Your task to perform on an android device: Search for the best deal on a 3d printer on aliexpress Image 0: 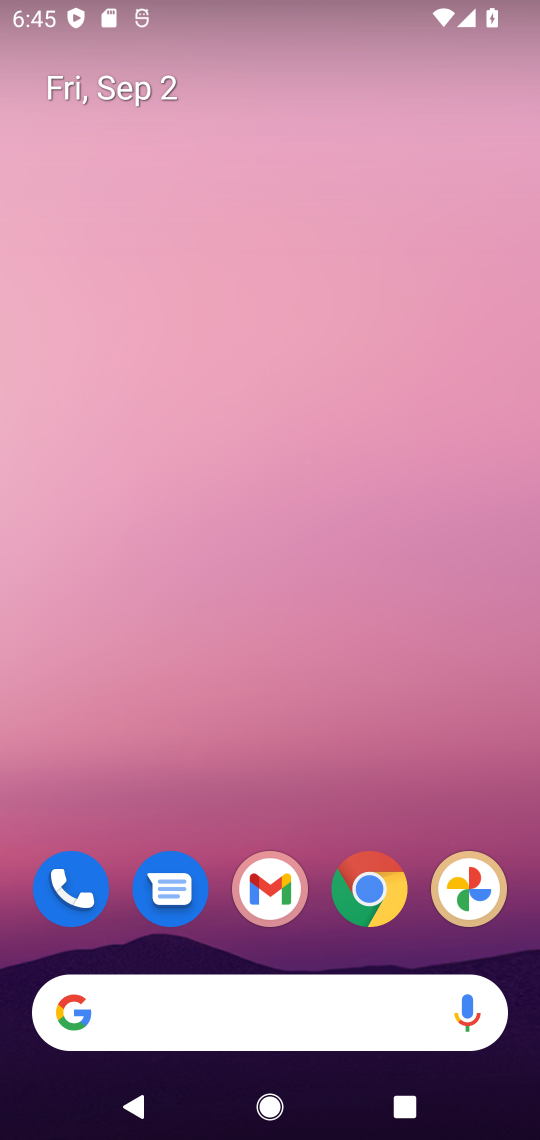
Step 0: click (239, 1013)
Your task to perform on an android device: Search for the best deal on a 3d printer on aliexpress Image 1: 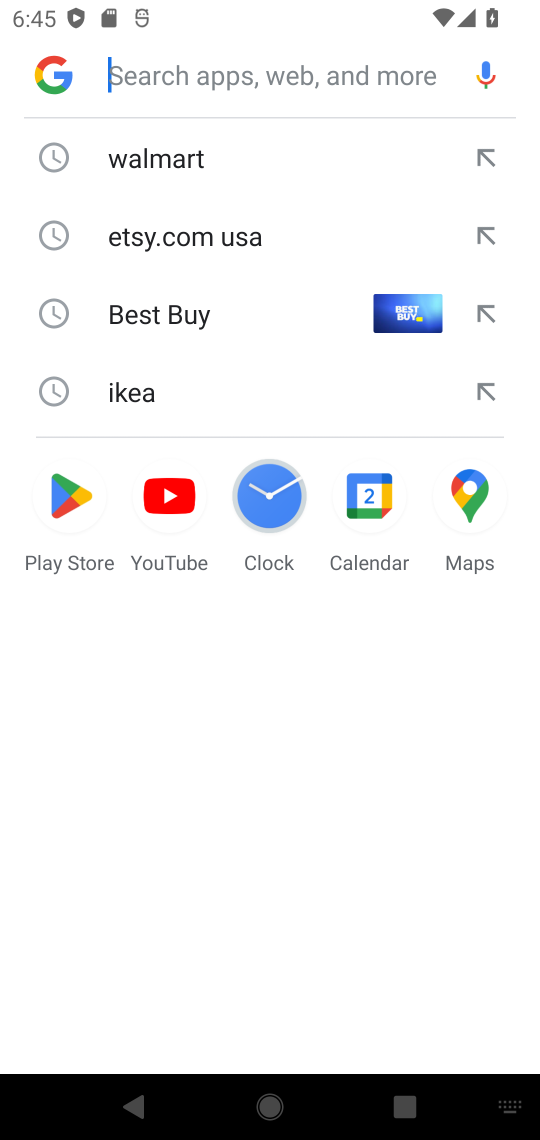
Step 1: type "aliexpress"
Your task to perform on an android device: Search for the best deal on a 3d printer on aliexpress Image 2: 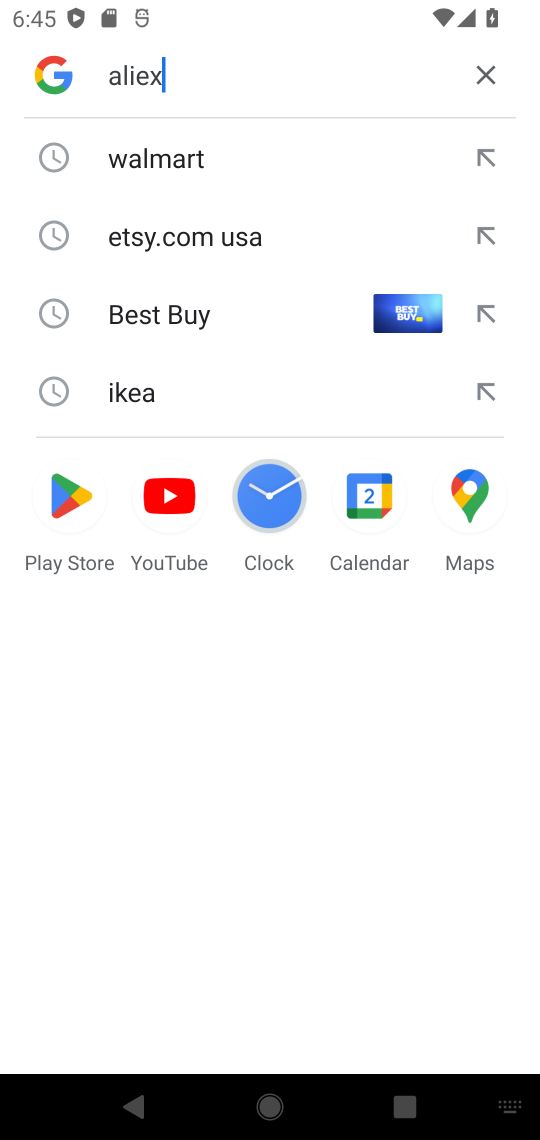
Step 2: type ""
Your task to perform on an android device: Search for the best deal on a 3d printer on aliexpress Image 3: 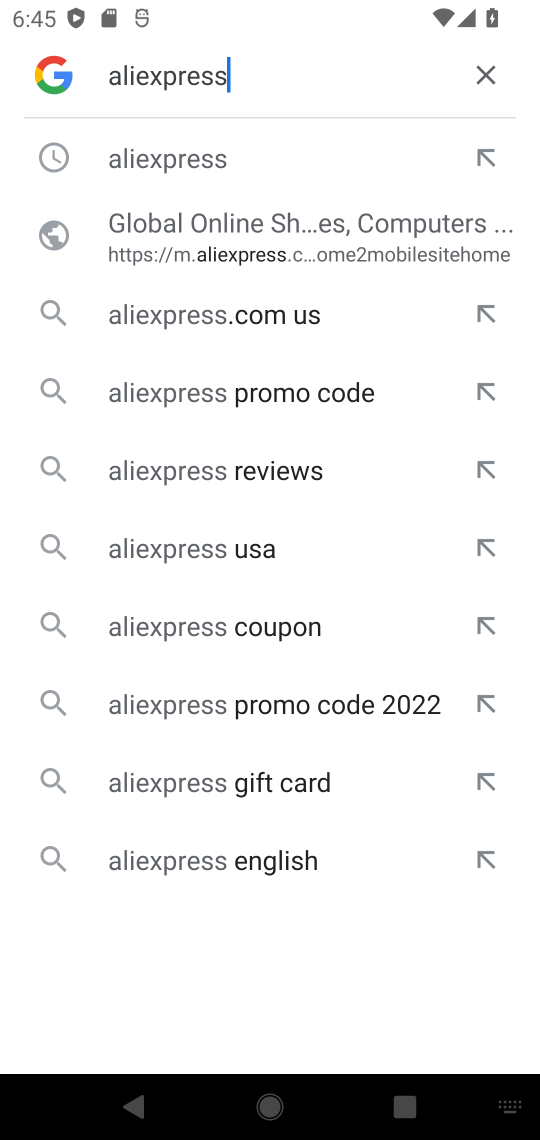
Step 3: click (206, 157)
Your task to perform on an android device: Search for the best deal on a 3d printer on aliexpress Image 4: 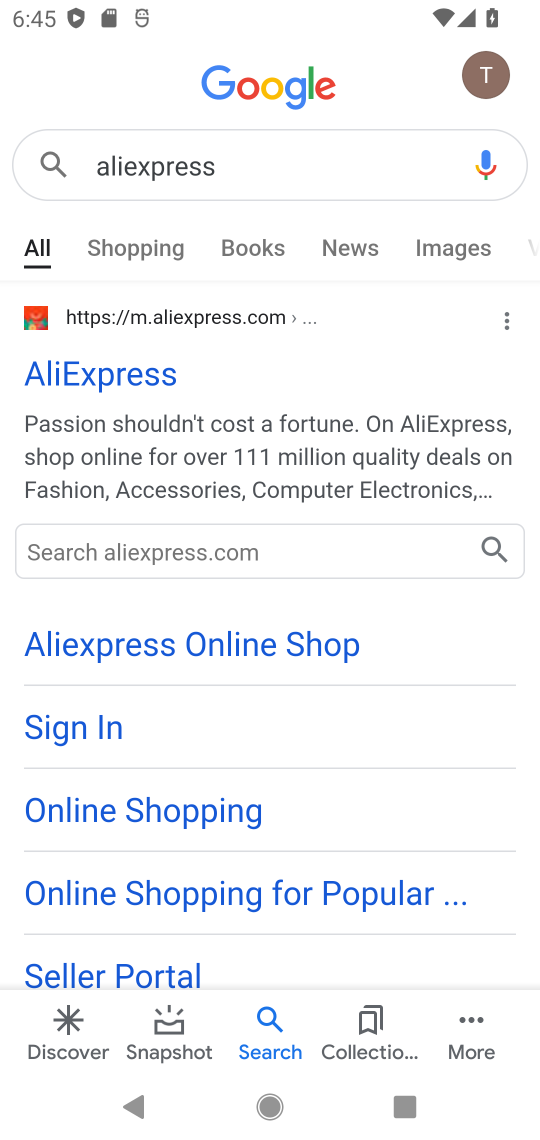
Step 4: click (150, 369)
Your task to perform on an android device: Search for the best deal on a 3d printer on aliexpress Image 5: 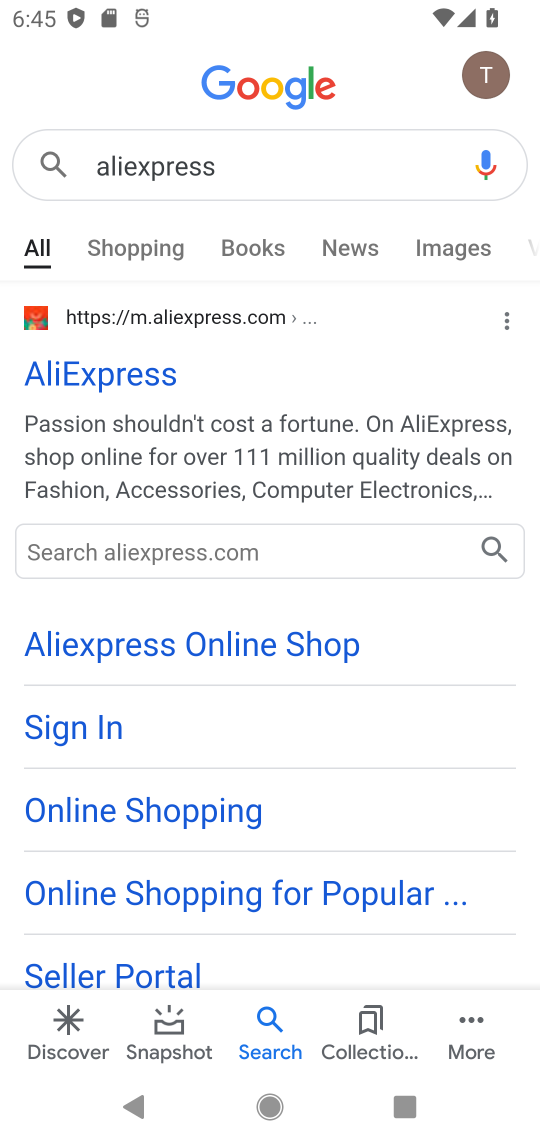
Step 5: click (119, 388)
Your task to perform on an android device: Search for the best deal on a 3d printer on aliexpress Image 6: 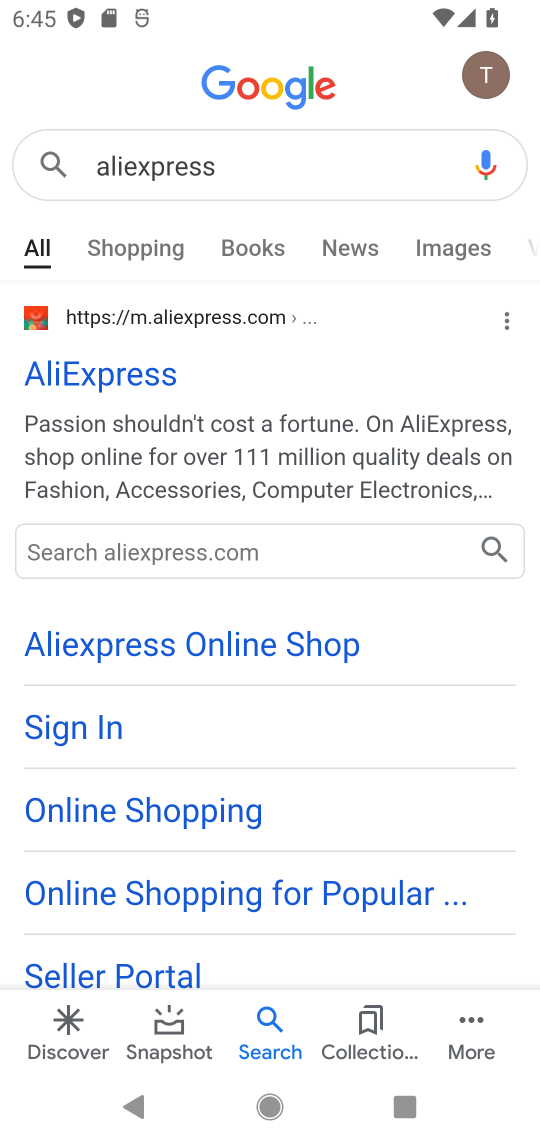
Step 6: click (115, 381)
Your task to perform on an android device: Search for the best deal on a 3d printer on aliexpress Image 7: 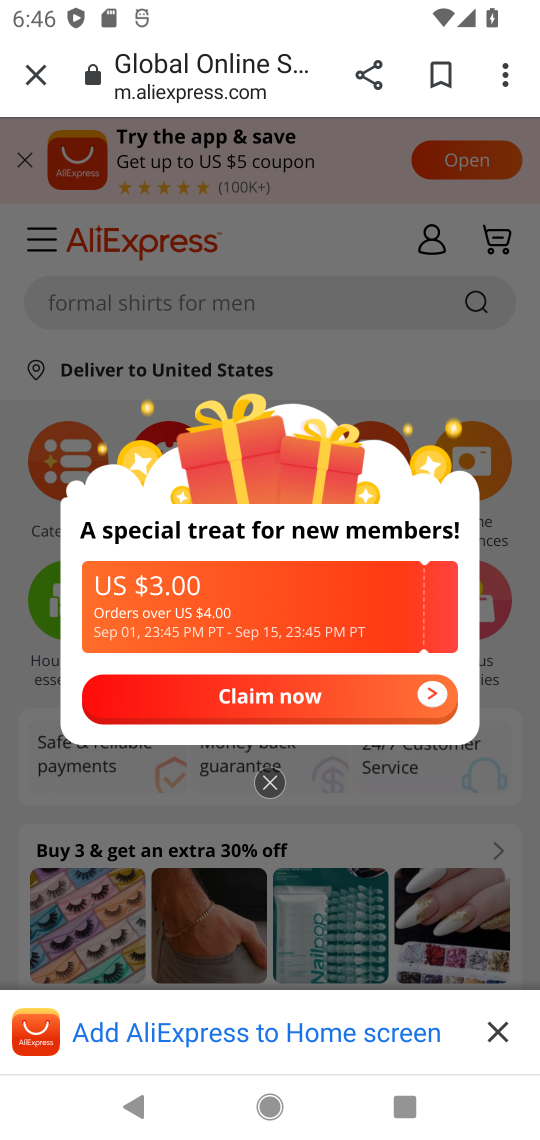
Step 7: click (263, 786)
Your task to perform on an android device: Search for the best deal on a 3d printer on aliexpress Image 8: 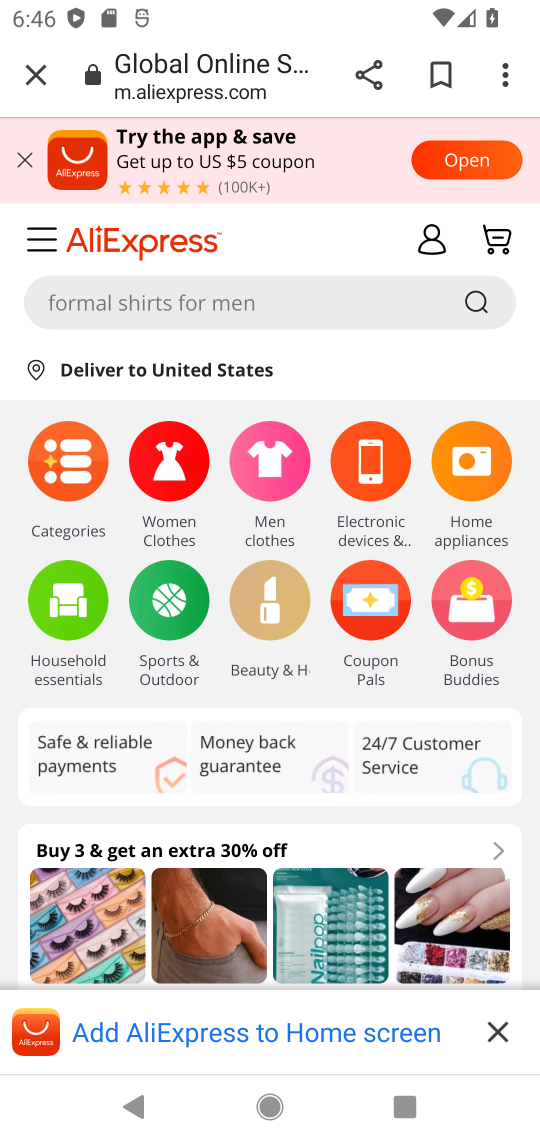
Step 8: click (205, 313)
Your task to perform on an android device: Search for the best deal on a 3d printer on aliexpress Image 9: 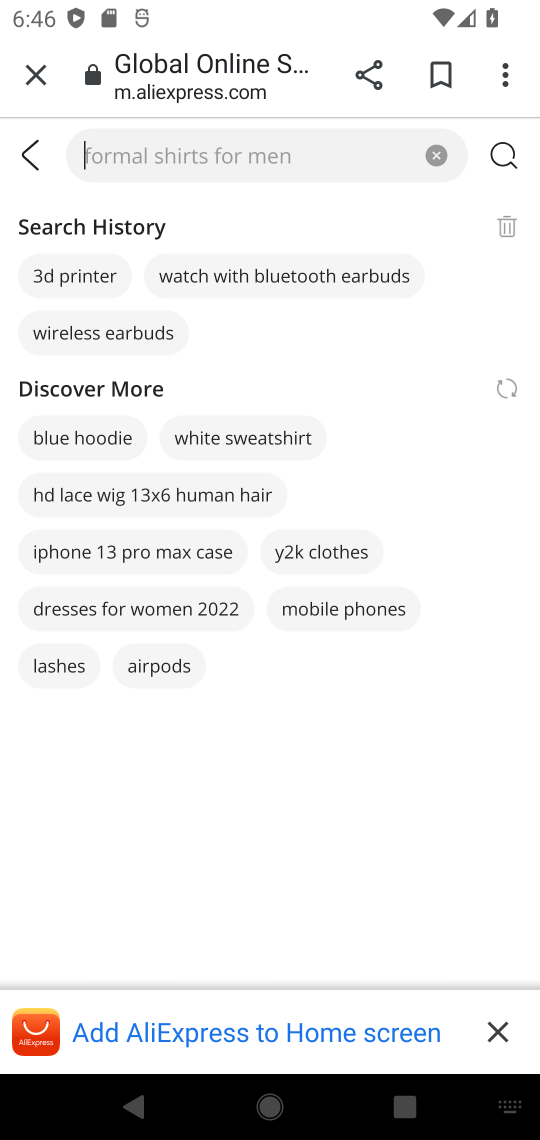
Step 9: type "3d printe"
Your task to perform on an android device: Search for the best deal on a 3d printer on aliexpress Image 10: 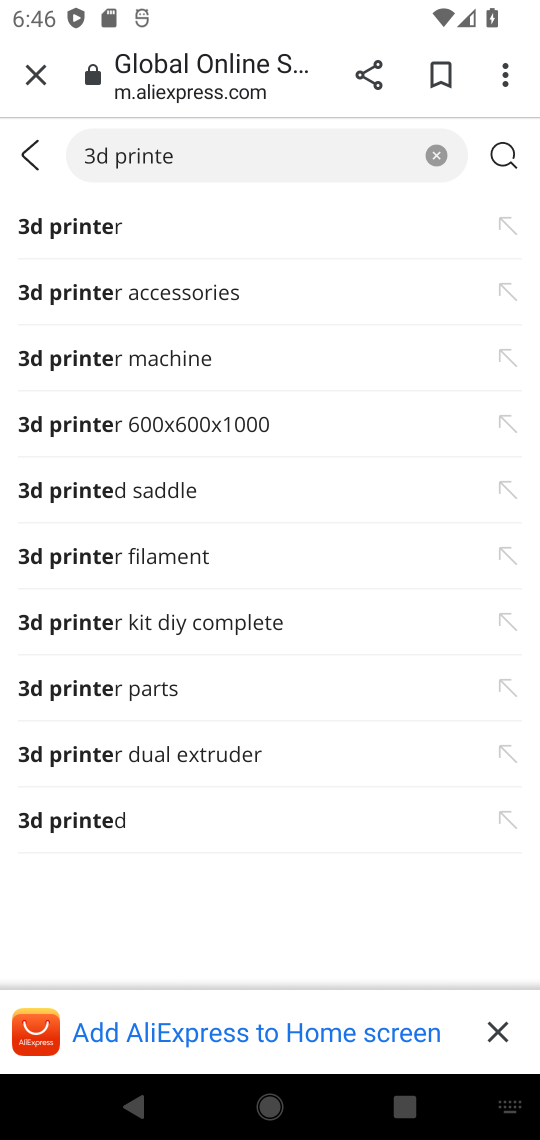
Step 10: click (97, 217)
Your task to perform on an android device: Search for the best deal on a 3d printer on aliexpress Image 11: 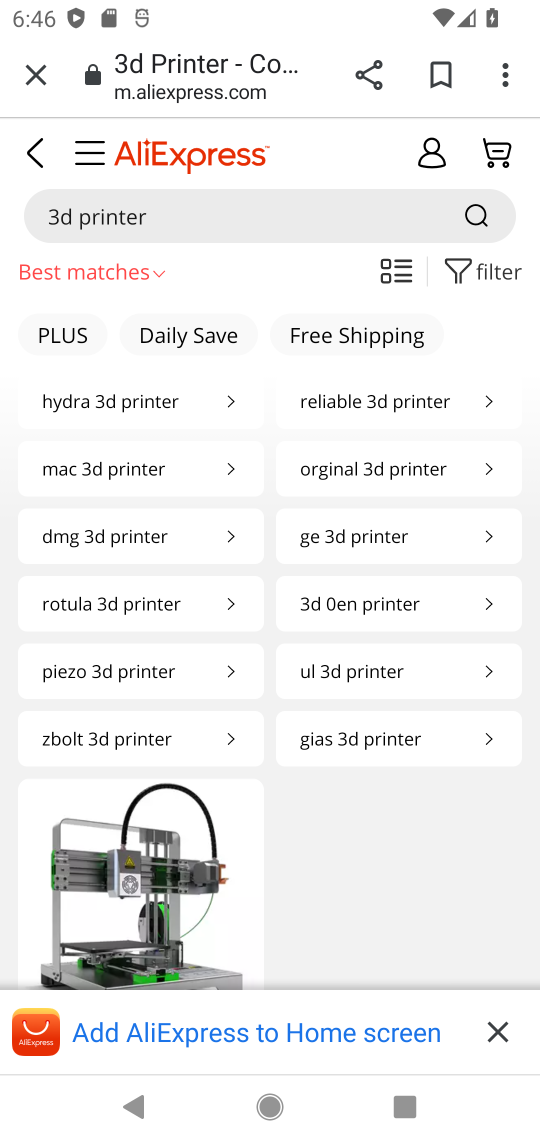
Step 11: click (472, 222)
Your task to perform on an android device: Search for the best deal on a 3d printer on aliexpress Image 12: 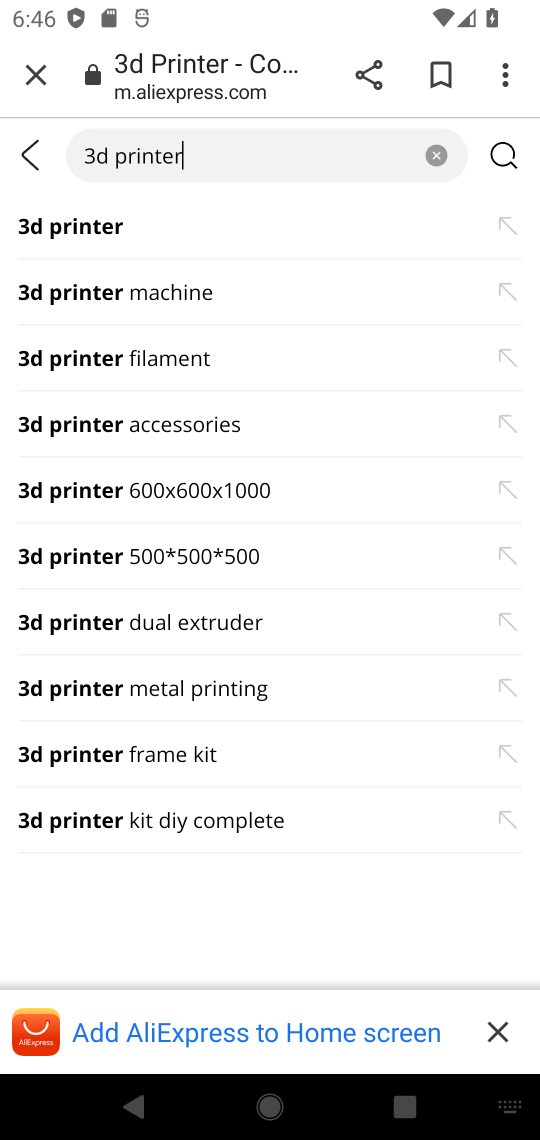
Step 12: click (86, 219)
Your task to perform on an android device: Search for the best deal on a 3d printer on aliexpress Image 13: 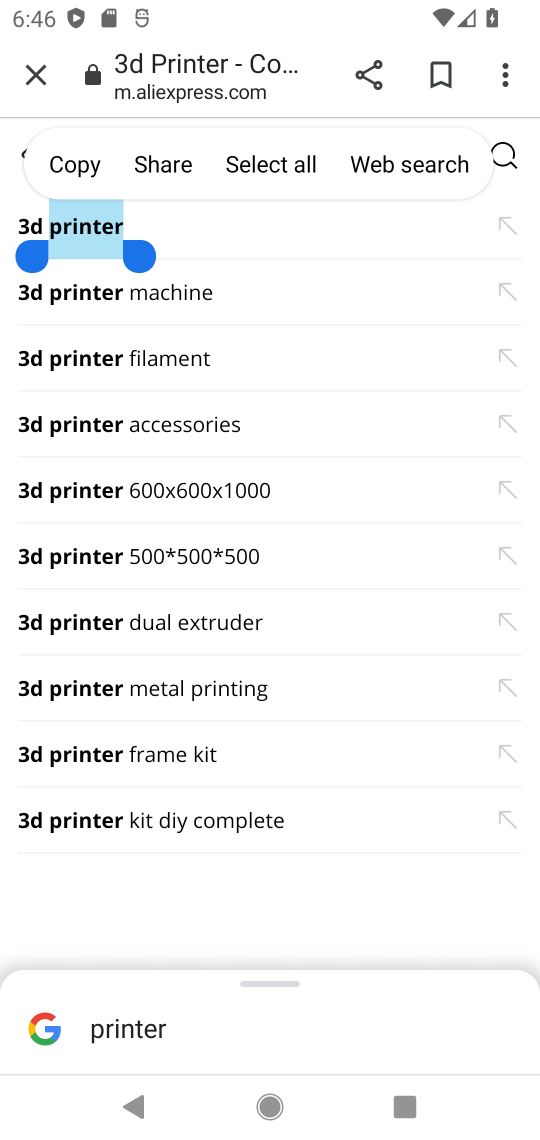
Step 13: click (225, 216)
Your task to perform on an android device: Search for the best deal on a 3d printer on aliexpress Image 14: 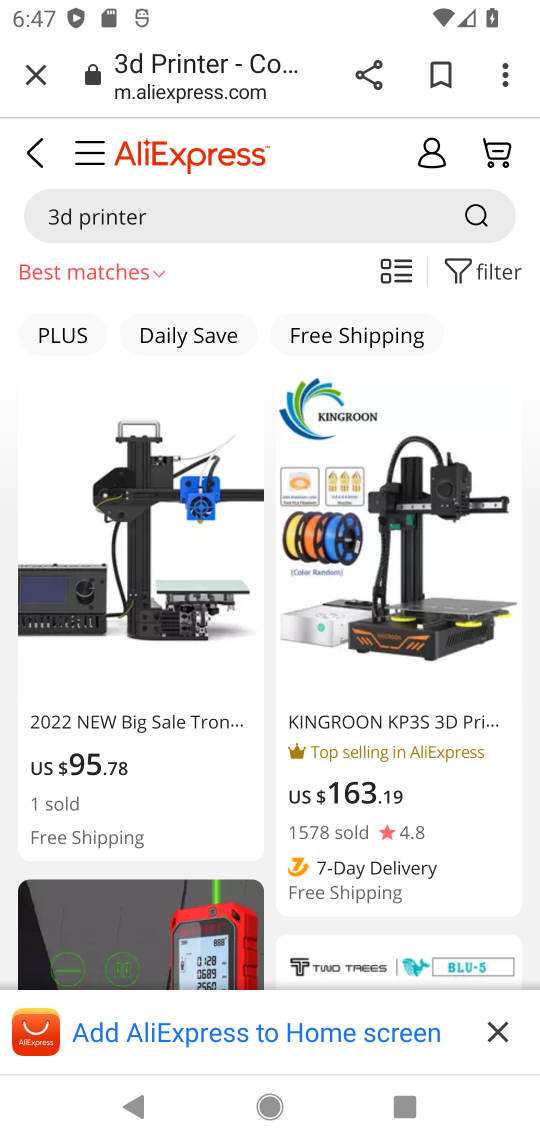
Step 14: click (478, 222)
Your task to perform on an android device: Search for the best deal on a 3d printer on aliexpress Image 15: 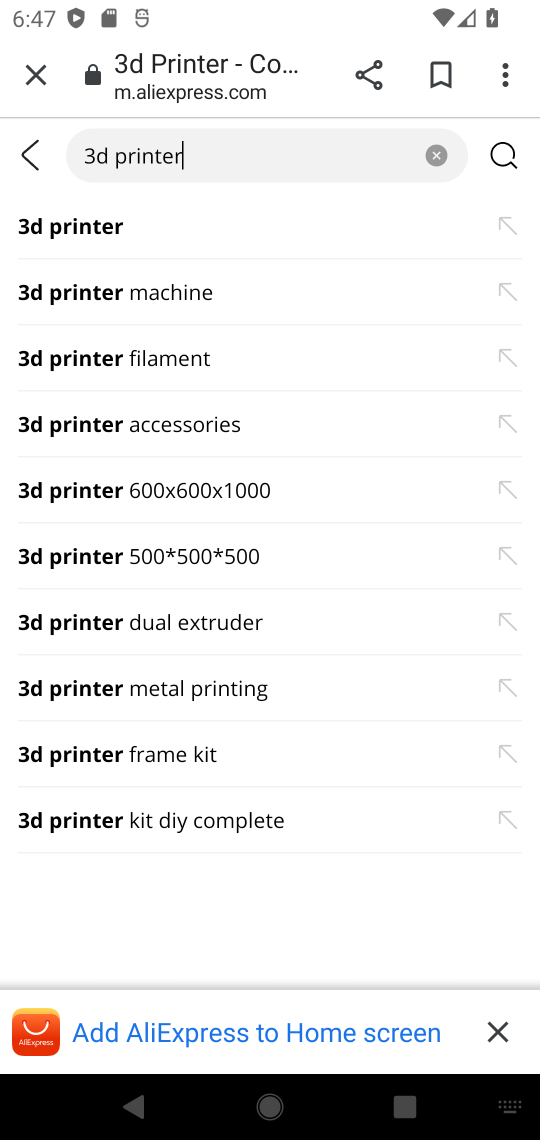
Step 15: click (158, 237)
Your task to perform on an android device: Search for the best deal on a 3d printer on aliexpress Image 16: 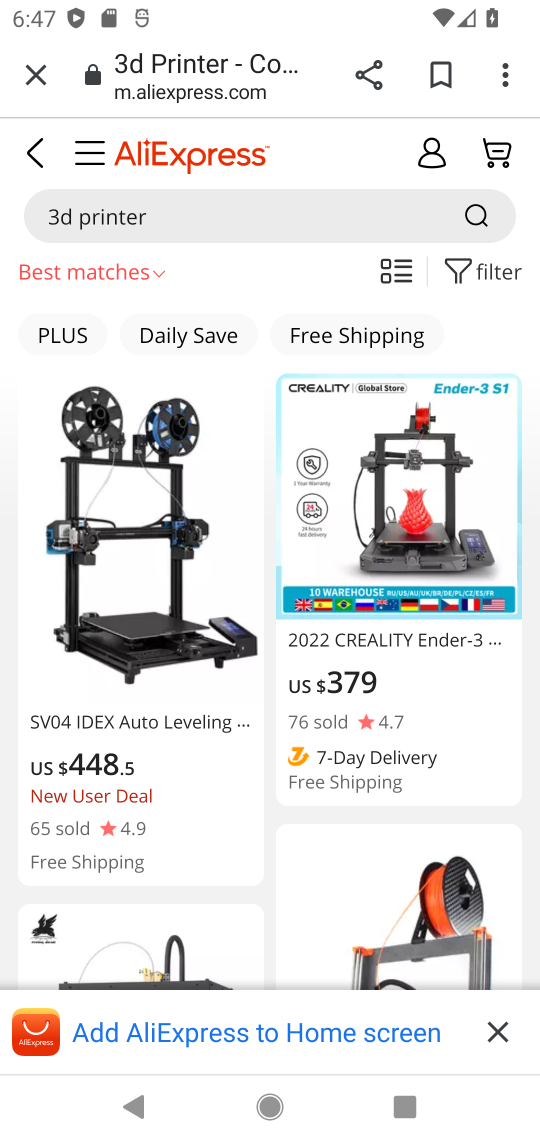
Step 16: task complete